Your task to perform on an android device: show emergency info Image 0: 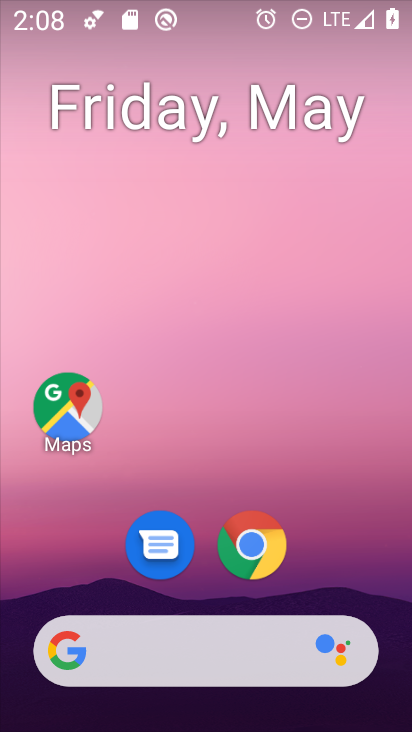
Step 0: drag from (321, 554) to (268, 187)
Your task to perform on an android device: show emergency info Image 1: 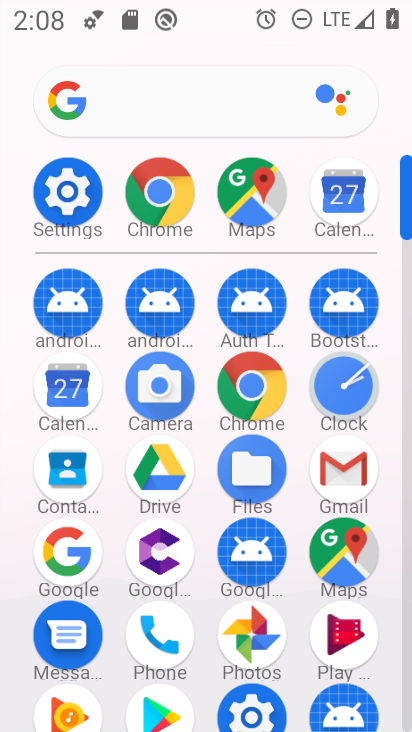
Step 1: click (58, 179)
Your task to perform on an android device: show emergency info Image 2: 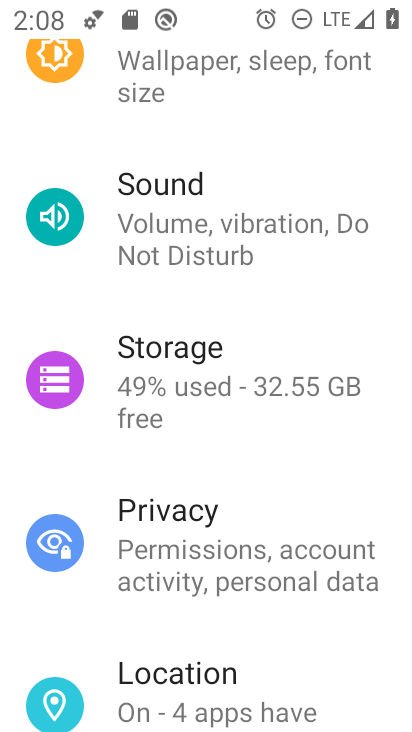
Step 2: drag from (252, 683) to (267, 238)
Your task to perform on an android device: show emergency info Image 3: 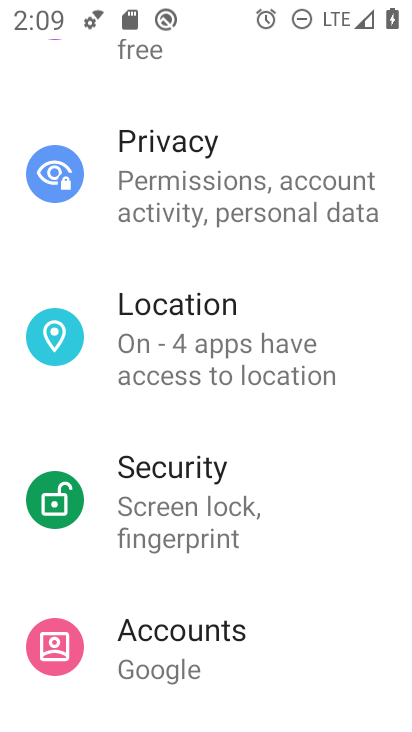
Step 3: drag from (196, 656) to (290, 125)
Your task to perform on an android device: show emergency info Image 4: 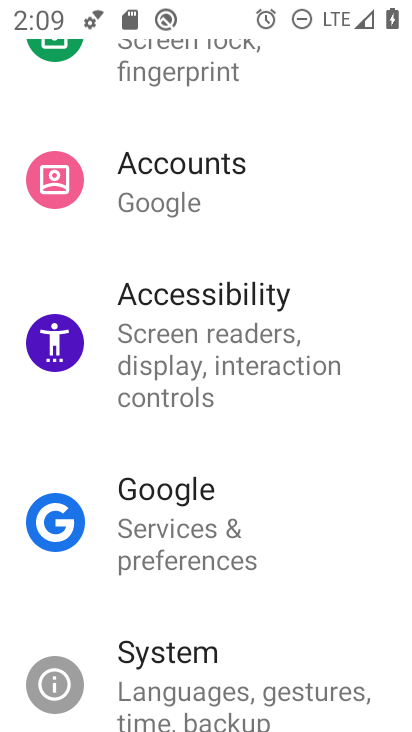
Step 4: drag from (212, 701) to (268, 238)
Your task to perform on an android device: show emergency info Image 5: 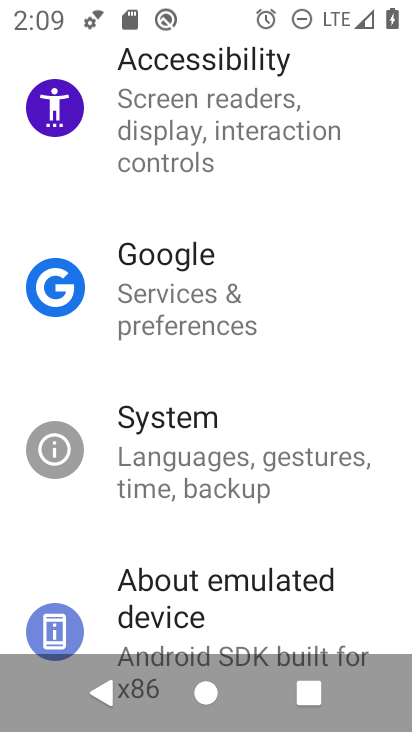
Step 5: click (239, 603)
Your task to perform on an android device: show emergency info Image 6: 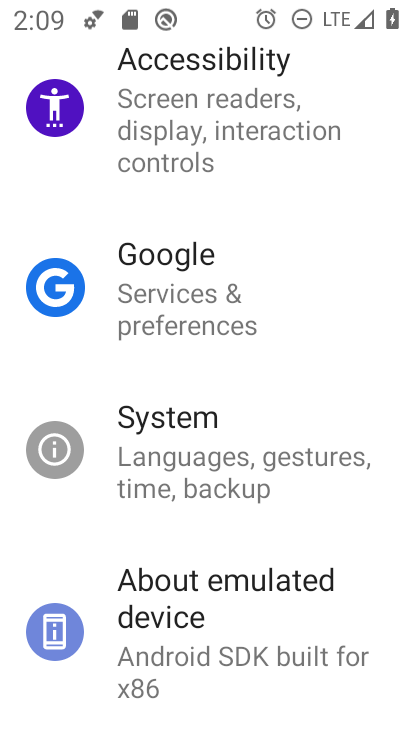
Step 6: click (192, 608)
Your task to perform on an android device: show emergency info Image 7: 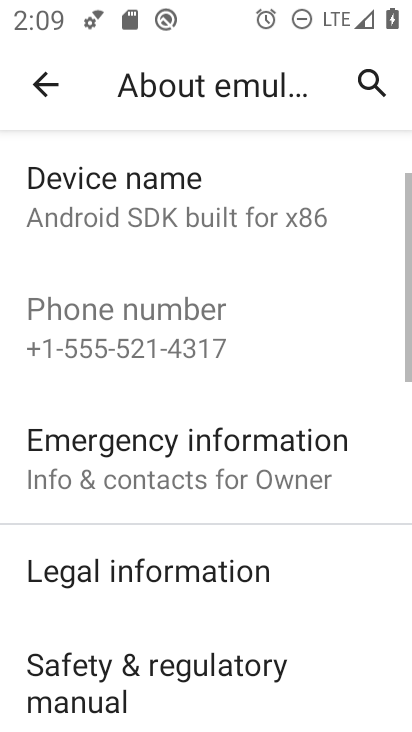
Step 7: click (217, 444)
Your task to perform on an android device: show emergency info Image 8: 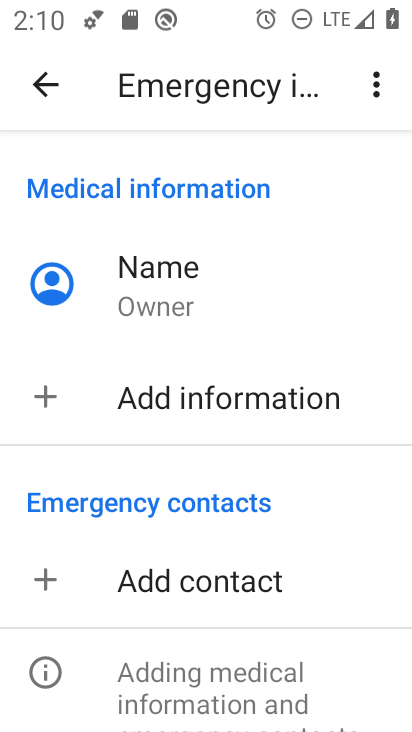
Step 8: press home button
Your task to perform on an android device: show emergency info Image 9: 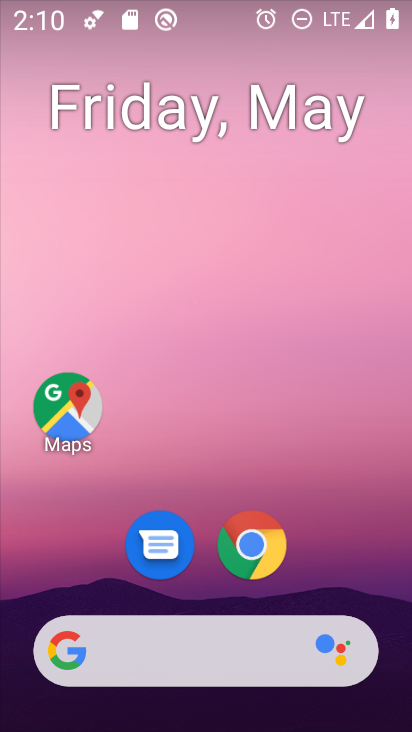
Step 9: drag from (335, 571) to (297, 241)
Your task to perform on an android device: show emergency info Image 10: 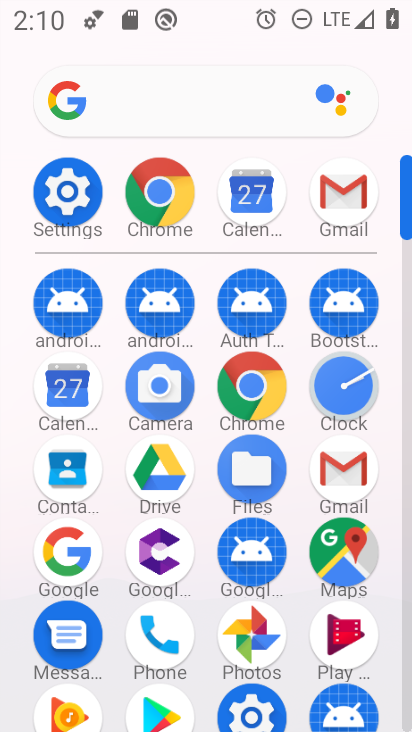
Step 10: click (54, 190)
Your task to perform on an android device: show emergency info Image 11: 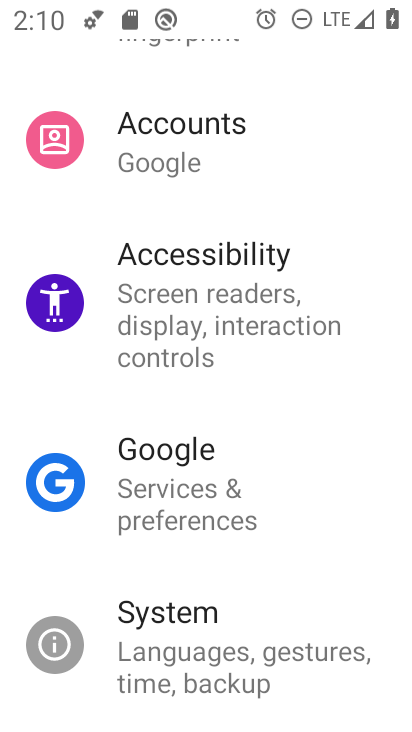
Step 11: drag from (302, 653) to (279, 194)
Your task to perform on an android device: show emergency info Image 12: 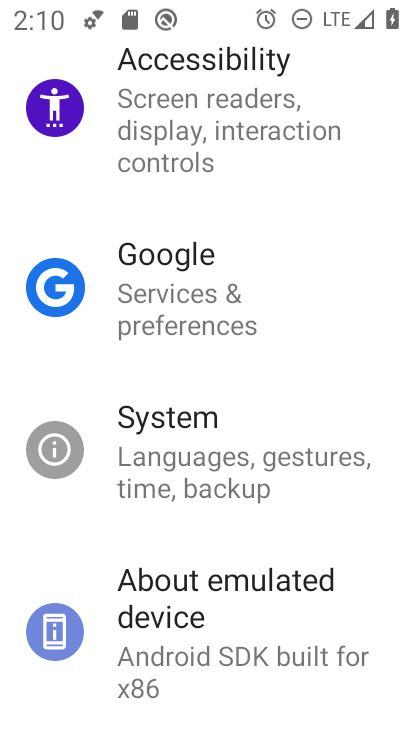
Step 12: click (208, 603)
Your task to perform on an android device: show emergency info Image 13: 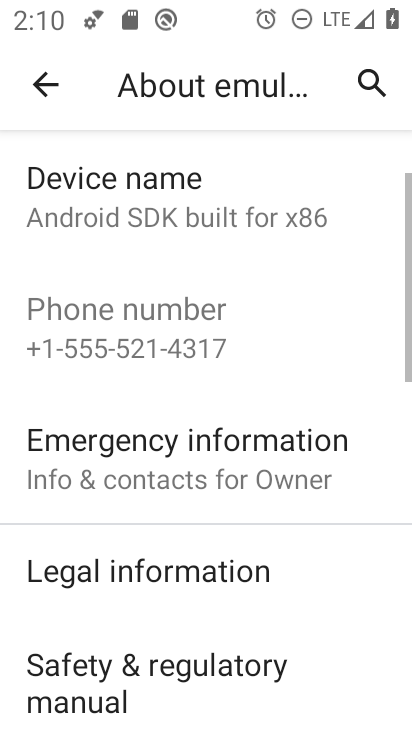
Step 13: click (197, 469)
Your task to perform on an android device: show emergency info Image 14: 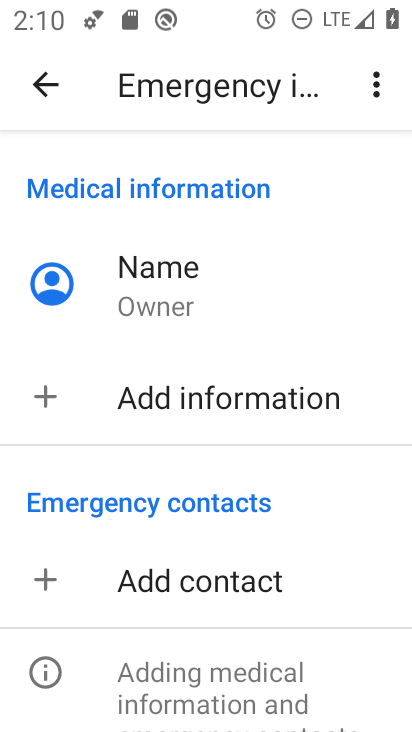
Step 14: task complete